Your task to perform on an android device: Play the last video I watched on Youtube Image 0: 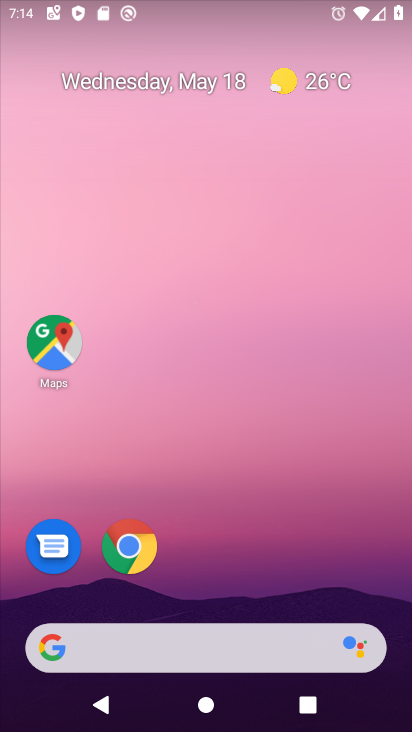
Step 0: drag from (363, 614) to (345, 47)
Your task to perform on an android device: Play the last video I watched on Youtube Image 1: 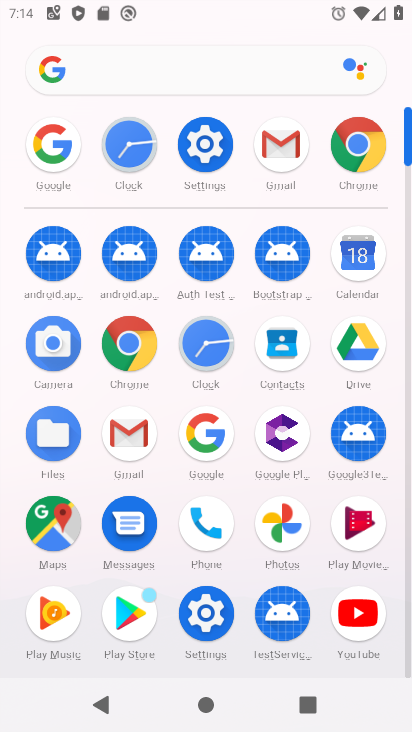
Step 1: click (349, 615)
Your task to perform on an android device: Play the last video I watched on Youtube Image 2: 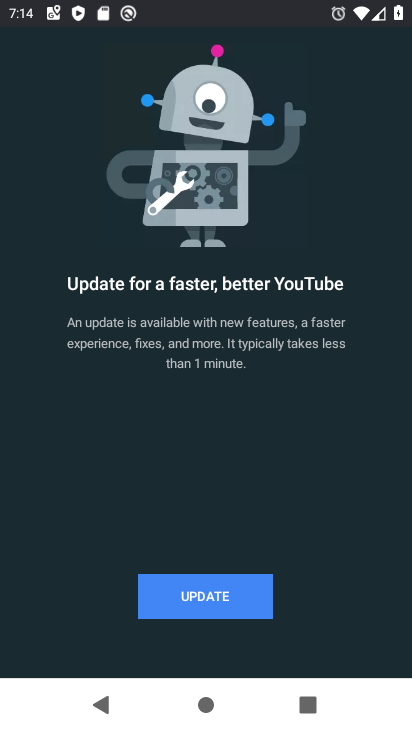
Step 2: click (181, 584)
Your task to perform on an android device: Play the last video I watched on Youtube Image 3: 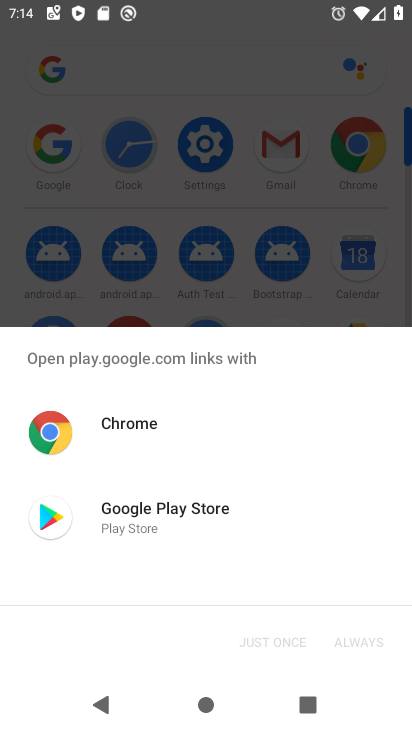
Step 3: click (145, 512)
Your task to perform on an android device: Play the last video I watched on Youtube Image 4: 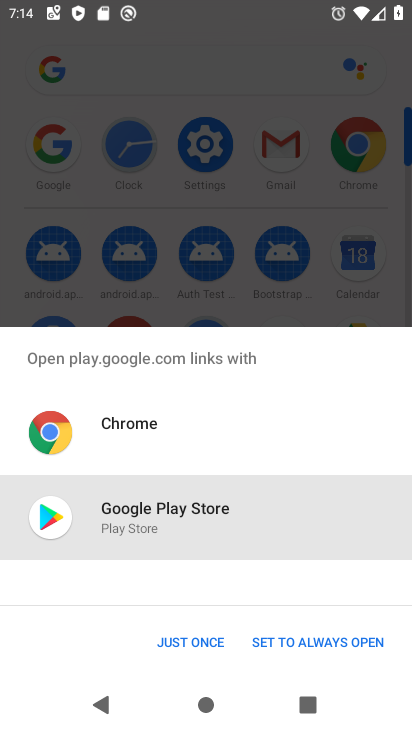
Step 4: click (169, 642)
Your task to perform on an android device: Play the last video I watched on Youtube Image 5: 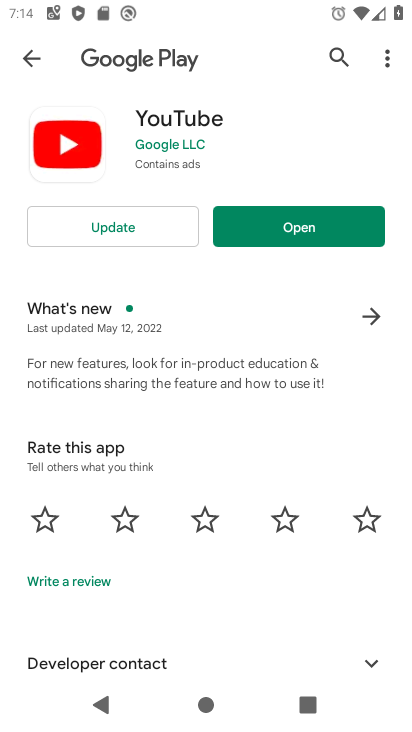
Step 5: click (118, 231)
Your task to perform on an android device: Play the last video I watched on Youtube Image 6: 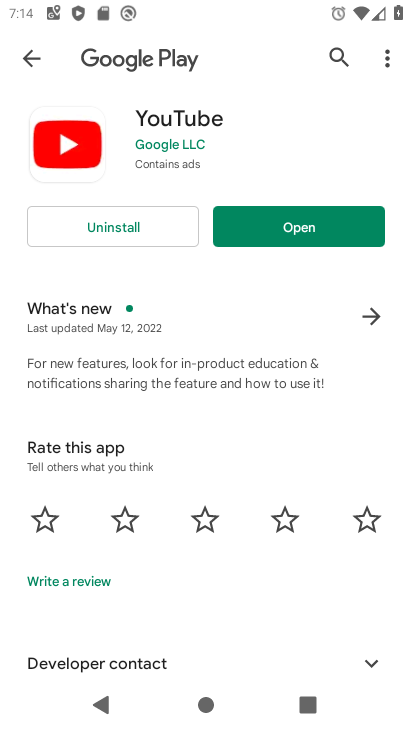
Step 6: click (334, 232)
Your task to perform on an android device: Play the last video I watched on Youtube Image 7: 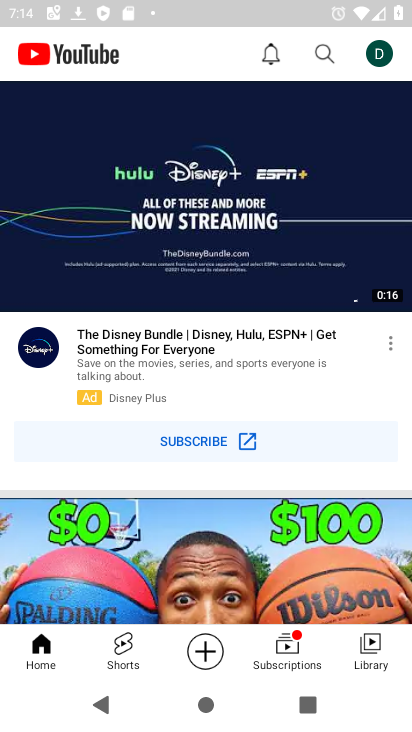
Step 7: task complete